Your task to perform on an android device: set default search engine in the chrome app Image 0: 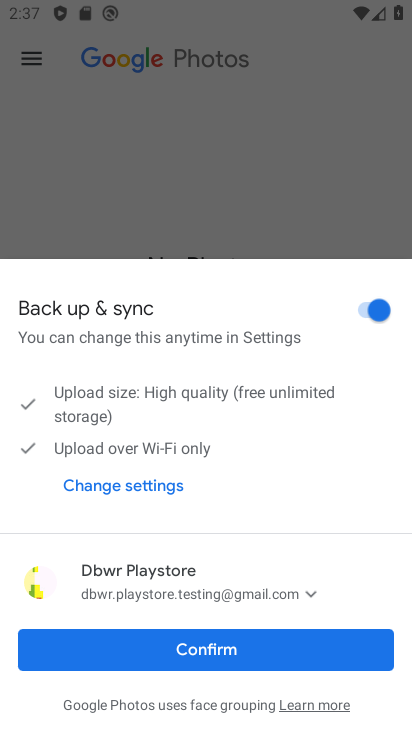
Step 0: press home button
Your task to perform on an android device: set default search engine in the chrome app Image 1: 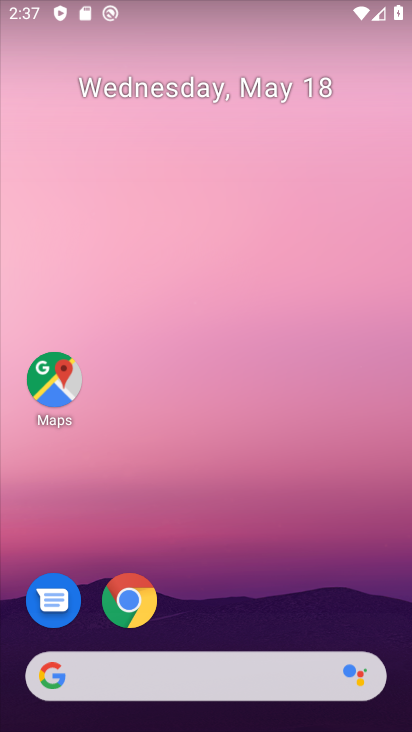
Step 1: drag from (358, 595) to (289, 117)
Your task to perform on an android device: set default search engine in the chrome app Image 2: 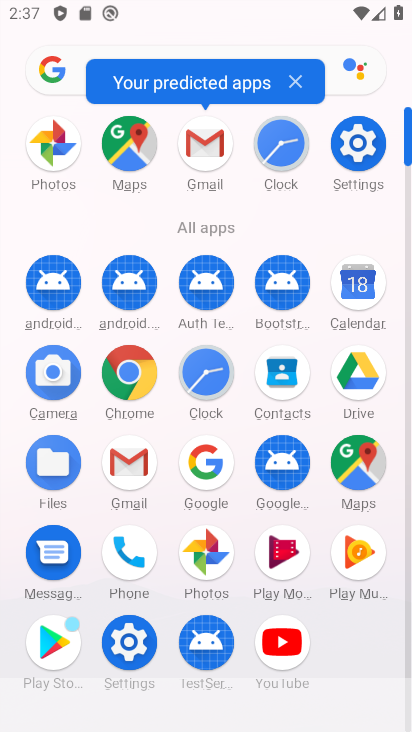
Step 2: click (354, 154)
Your task to perform on an android device: set default search engine in the chrome app Image 3: 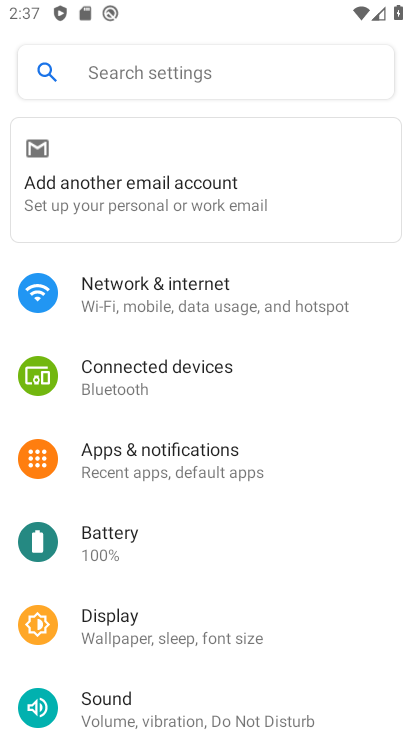
Step 3: drag from (257, 615) to (268, 333)
Your task to perform on an android device: set default search engine in the chrome app Image 4: 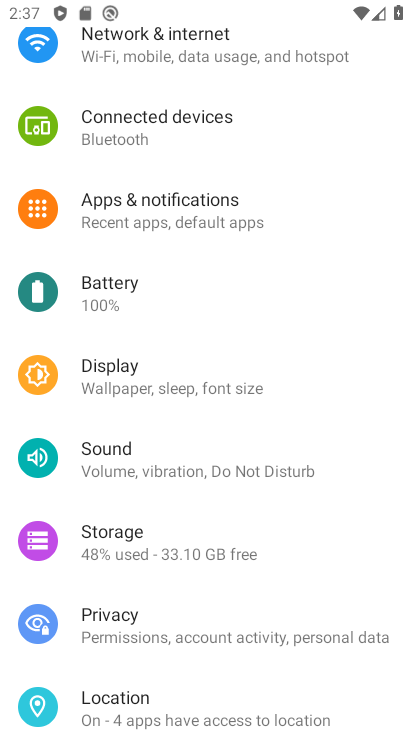
Step 4: press home button
Your task to perform on an android device: set default search engine in the chrome app Image 5: 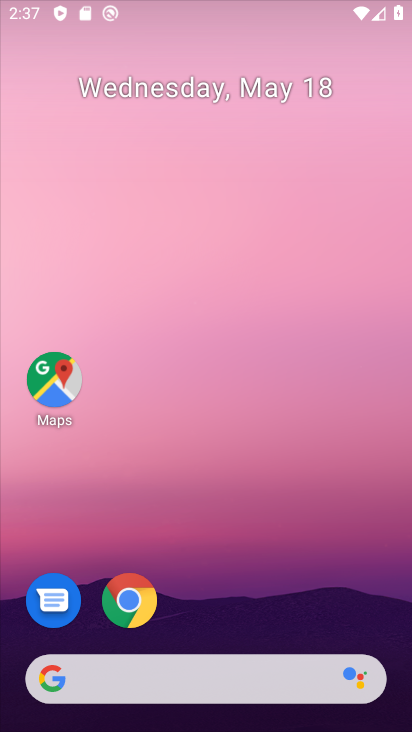
Step 5: drag from (283, 566) to (301, 195)
Your task to perform on an android device: set default search engine in the chrome app Image 6: 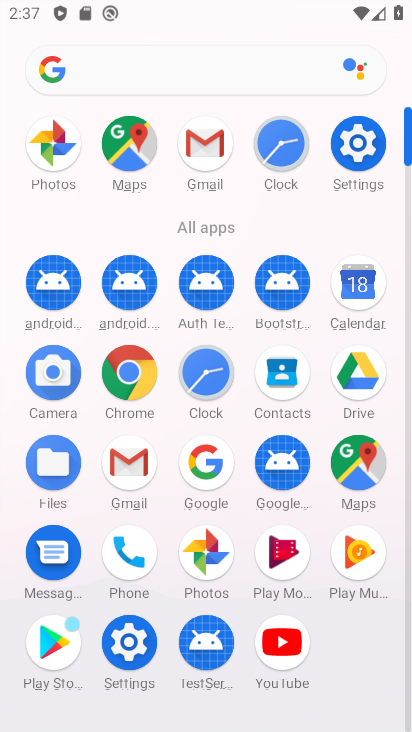
Step 6: click (100, 391)
Your task to perform on an android device: set default search engine in the chrome app Image 7: 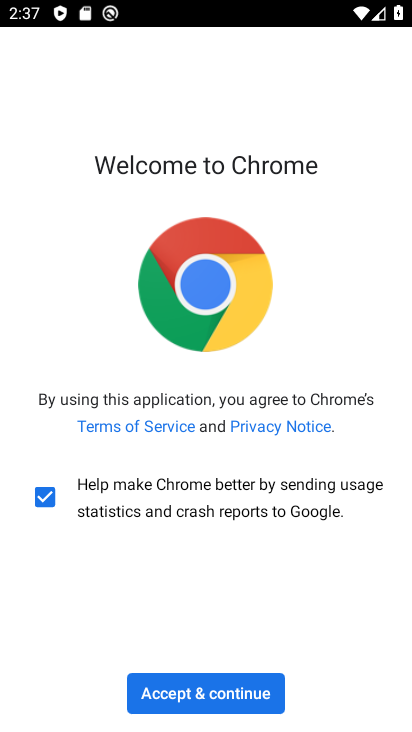
Step 7: click (221, 687)
Your task to perform on an android device: set default search engine in the chrome app Image 8: 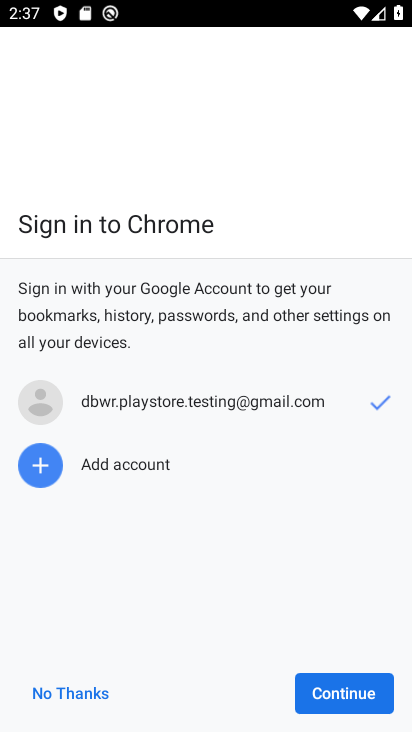
Step 8: click (326, 691)
Your task to perform on an android device: set default search engine in the chrome app Image 9: 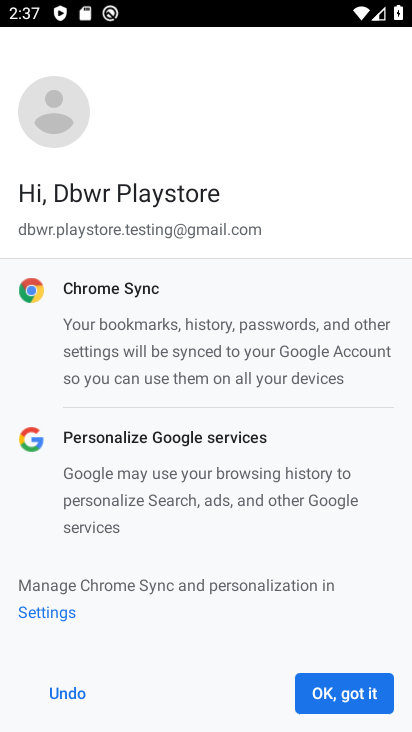
Step 9: click (325, 692)
Your task to perform on an android device: set default search engine in the chrome app Image 10: 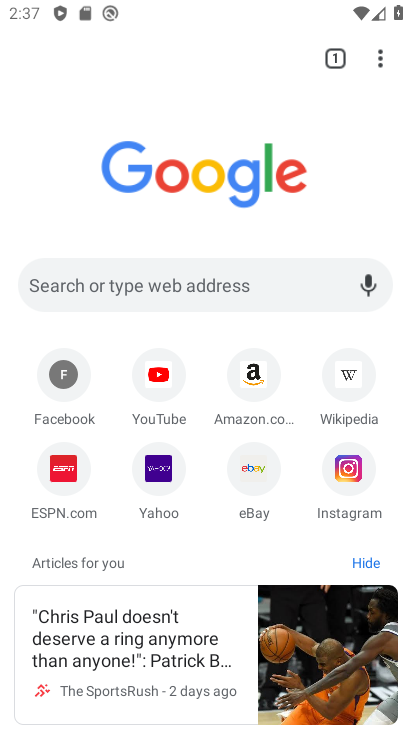
Step 10: drag from (381, 64) to (184, 494)
Your task to perform on an android device: set default search engine in the chrome app Image 11: 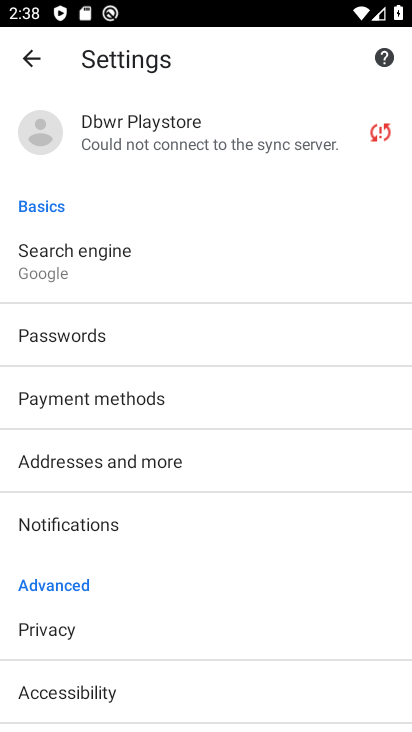
Step 11: click (72, 253)
Your task to perform on an android device: set default search engine in the chrome app Image 12: 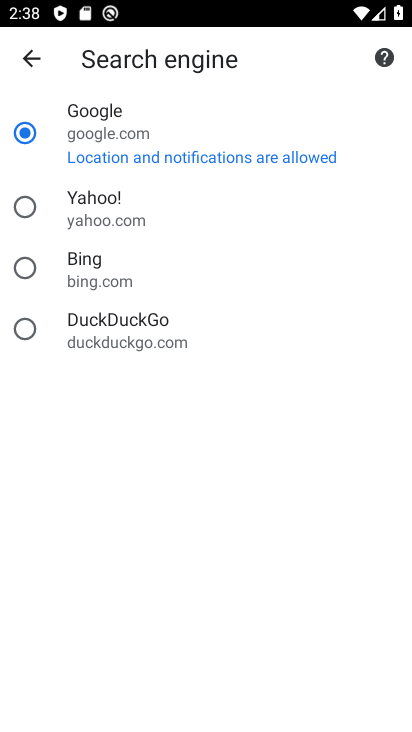
Step 12: click (106, 207)
Your task to perform on an android device: set default search engine in the chrome app Image 13: 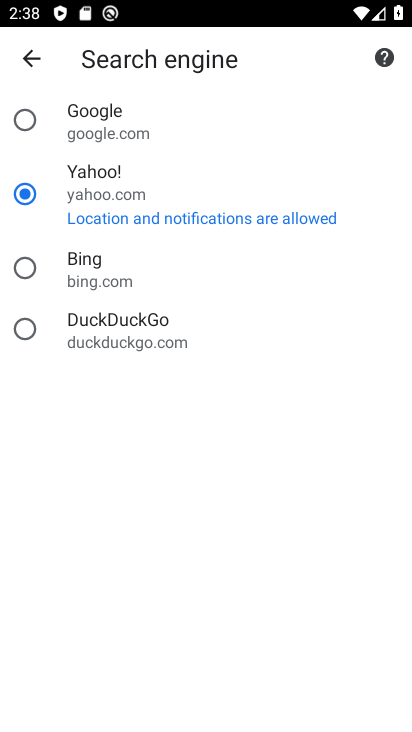
Step 13: task complete